Your task to perform on an android device: Go to internet settings Image 0: 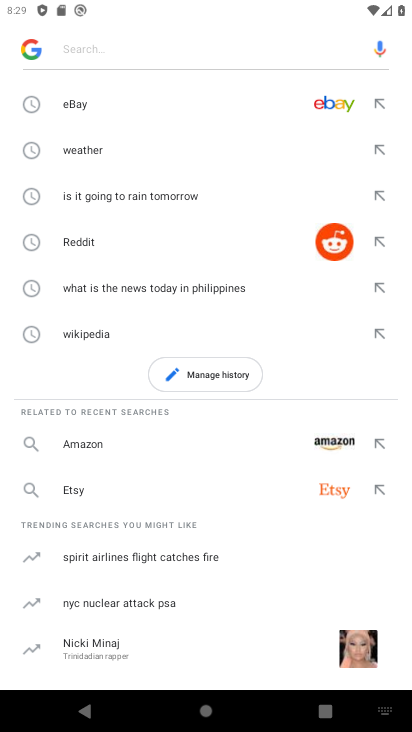
Step 0: press back button
Your task to perform on an android device: Go to internet settings Image 1: 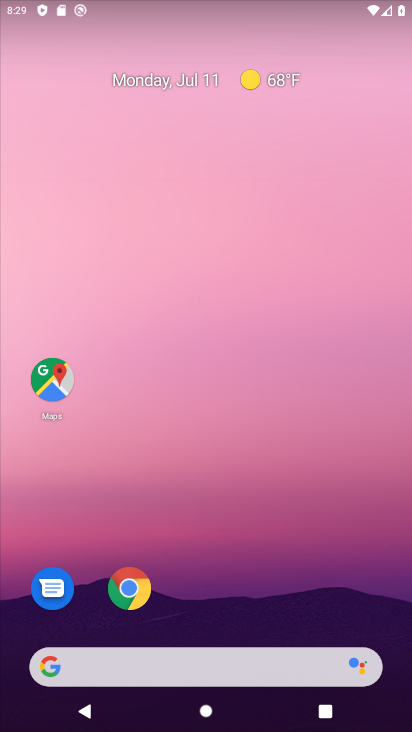
Step 1: drag from (219, 633) to (179, 77)
Your task to perform on an android device: Go to internet settings Image 2: 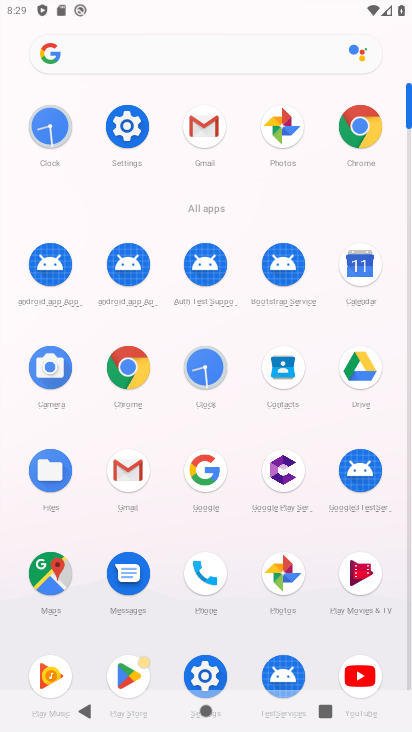
Step 2: click (121, 121)
Your task to perform on an android device: Go to internet settings Image 3: 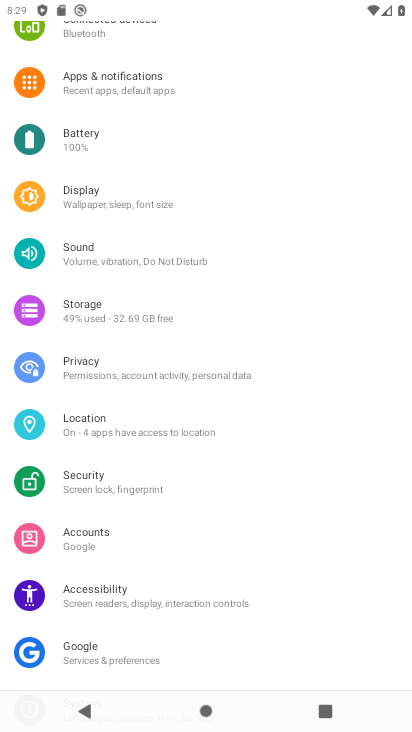
Step 3: drag from (155, 119) to (173, 376)
Your task to perform on an android device: Go to internet settings Image 4: 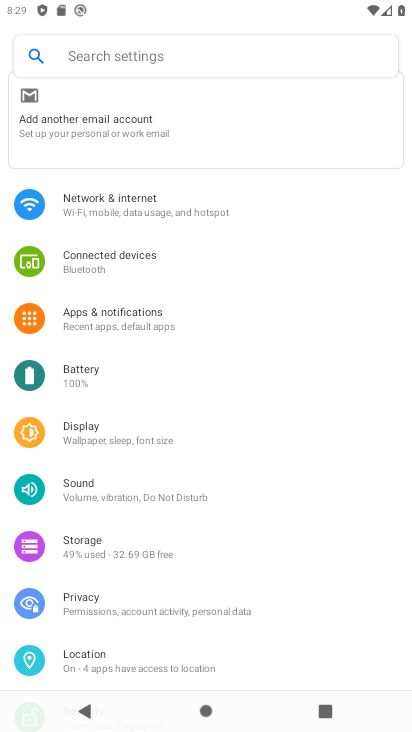
Step 4: click (142, 214)
Your task to perform on an android device: Go to internet settings Image 5: 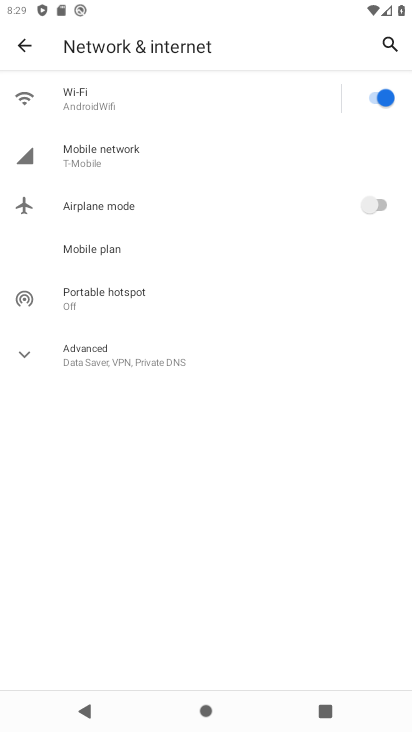
Step 5: click (162, 145)
Your task to perform on an android device: Go to internet settings Image 6: 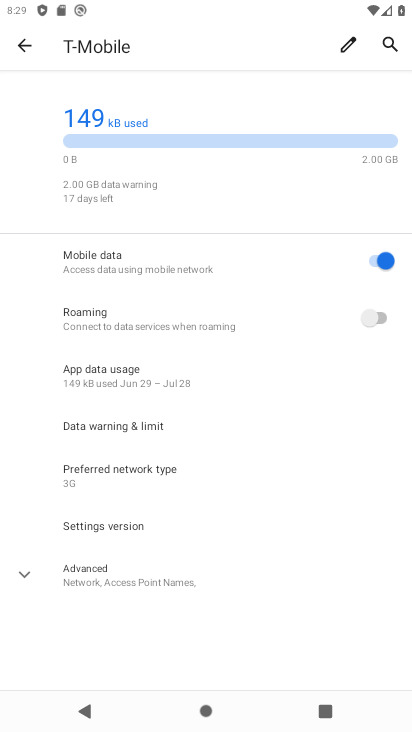
Step 6: task complete